Your task to perform on an android device: Open the web browser Image 0: 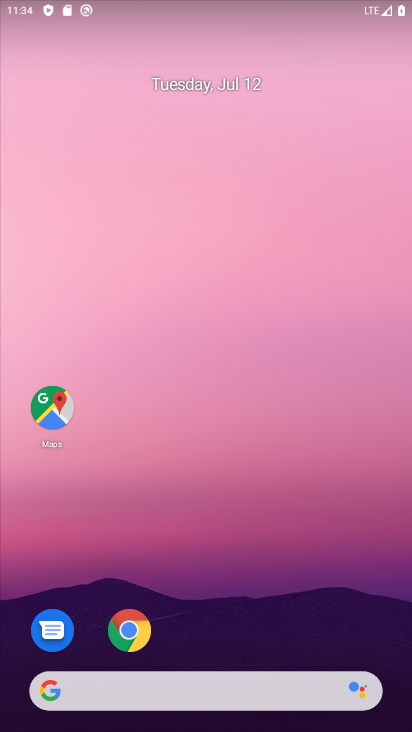
Step 0: drag from (386, 686) to (243, 60)
Your task to perform on an android device: Open the web browser Image 1: 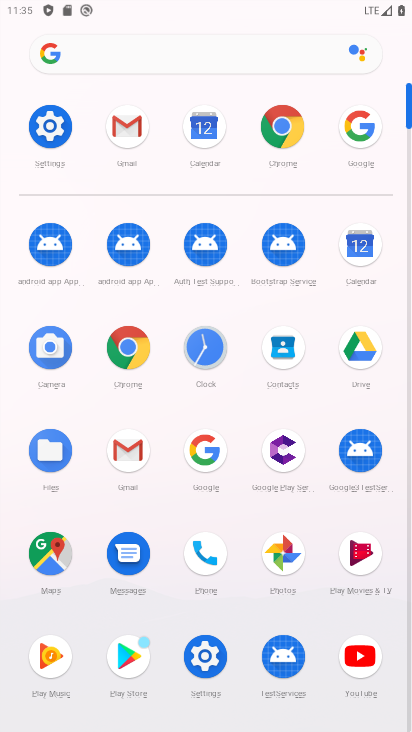
Step 1: click (199, 460)
Your task to perform on an android device: Open the web browser Image 2: 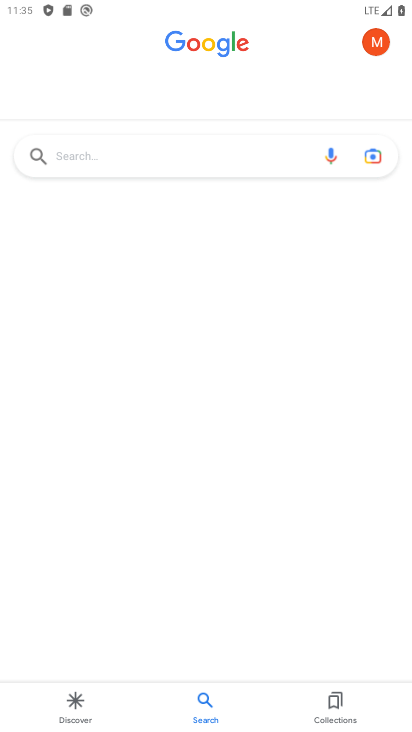
Step 2: click (112, 148)
Your task to perform on an android device: Open the web browser Image 3: 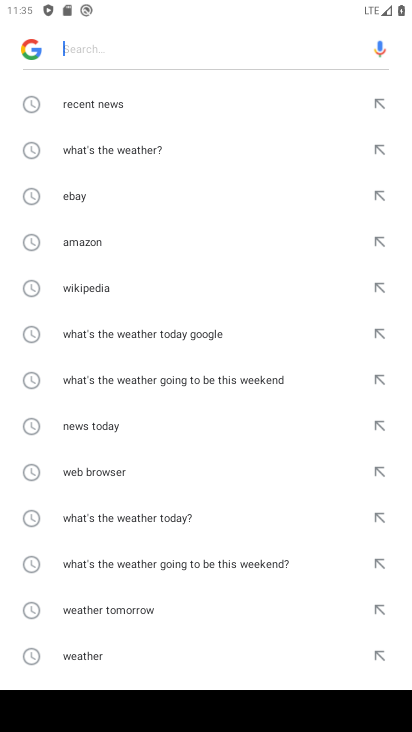
Step 3: click (120, 486)
Your task to perform on an android device: Open the web browser Image 4: 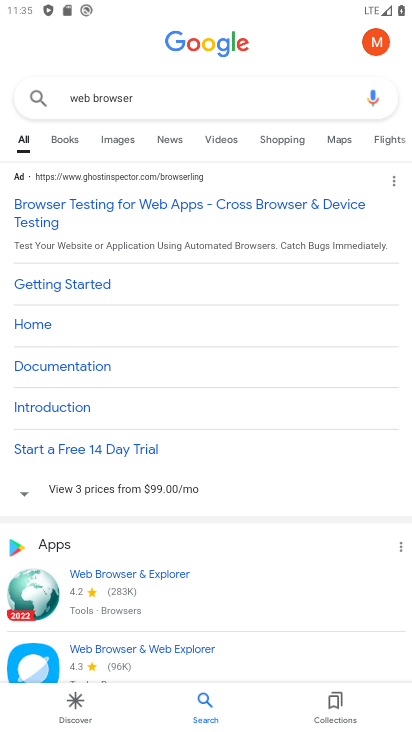
Step 4: task complete